Your task to perform on an android device: read, delete, or share a saved page in the chrome app Image 0: 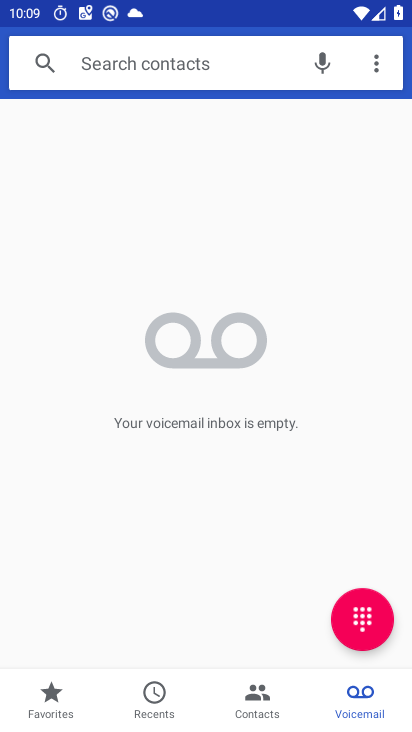
Step 0: press back button
Your task to perform on an android device: read, delete, or share a saved page in the chrome app Image 1: 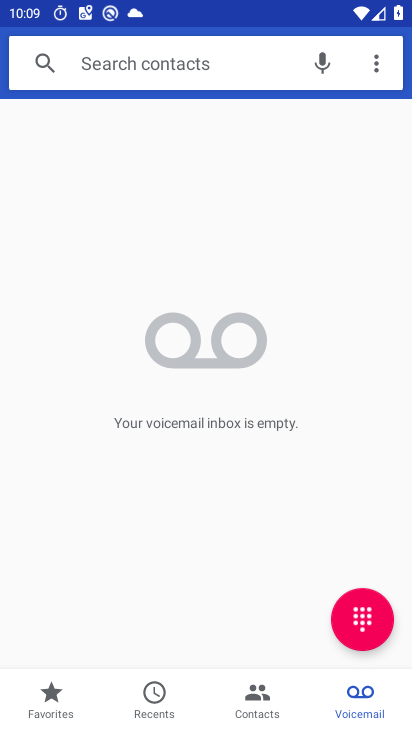
Step 1: press back button
Your task to perform on an android device: read, delete, or share a saved page in the chrome app Image 2: 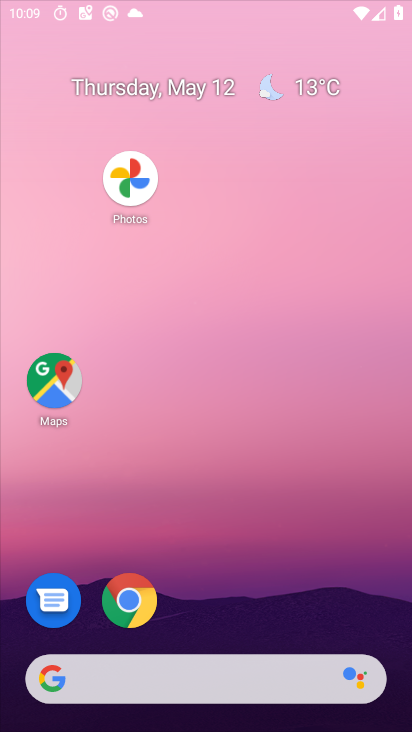
Step 2: press back button
Your task to perform on an android device: read, delete, or share a saved page in the chrome app Image 3: 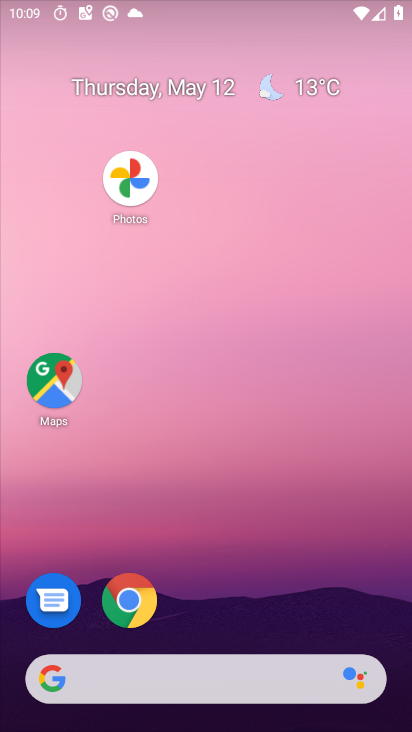
Step 3: press back button
Your task to perform on an android device: read, delete, or share a saved page in the chrome app Image 4: 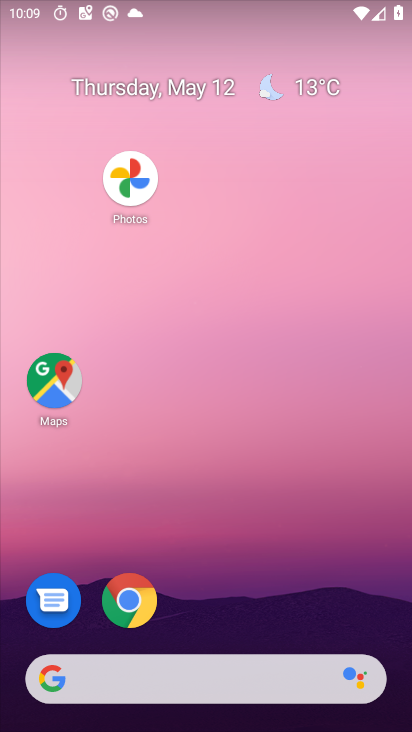
Step 4: drag from (254, 543) to (15, 0)
Your task to perform on an android device: read, delete, or share a saved page in the chrome app Image 5: 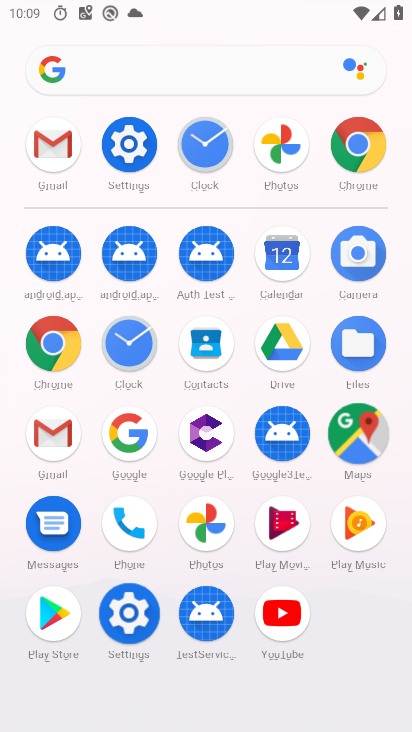
Step 5: click (54, 345)
Your task to perform on an android device: read, delete, or share a saved page in the chrome app Image 6: 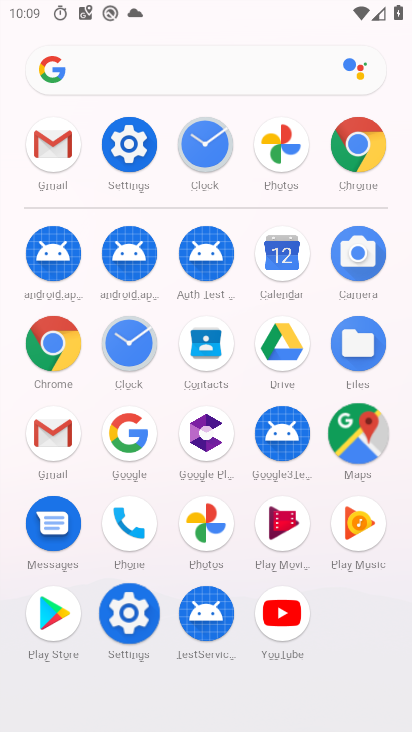
Step 6: click (45, 335)
Your task to perform on an android device: read, delete, or share a saved page in the chrome app Image 7: 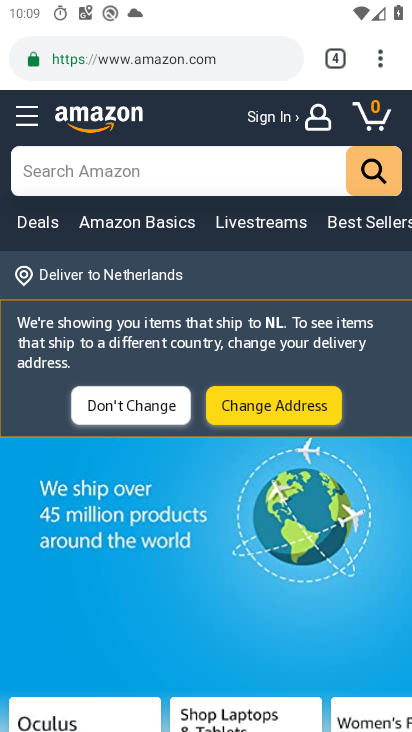
Step 7: drag from (378, 62) to (165, 387)
Your task to perform on an android device: read, delete, or share a saved page in the chrome app Image 8: 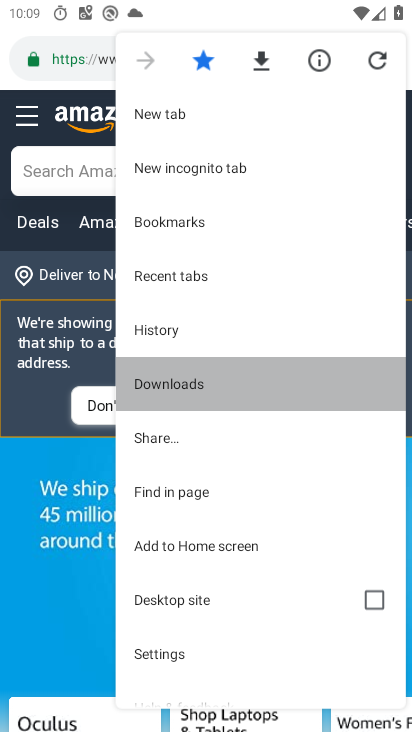
Step 8: click (165, 387)
Your task to perform on an android device: read, delete, or share a saved page in the chrome app Image 9: 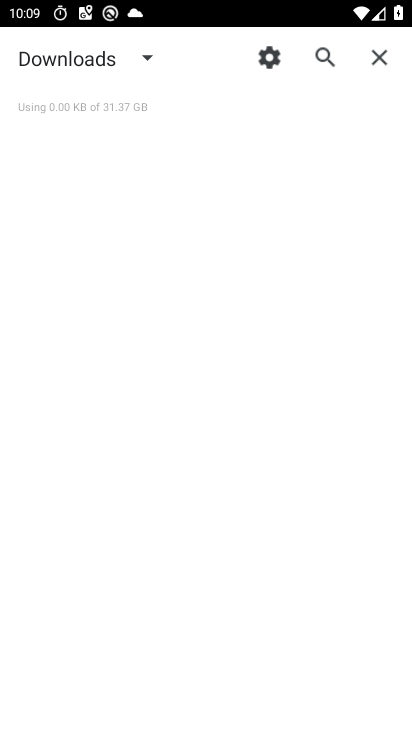
Step 9: click (140, 56)
Your task to perform on an android device: read, delete, or share a saved page in the chrome app Image 10: 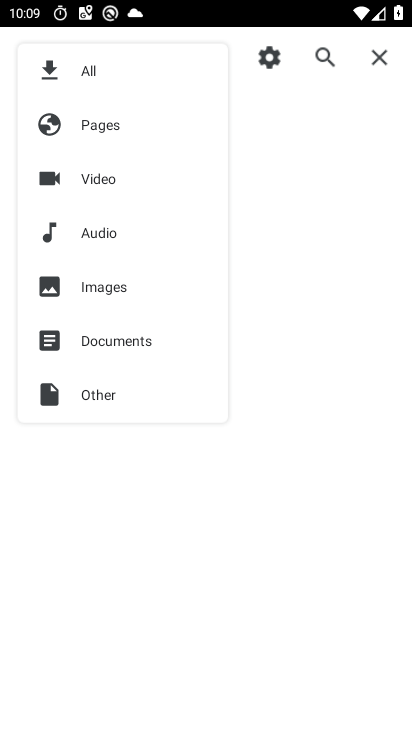
Step 10: click (102, 175)
Your task to perform on an android device: read, delete, or share a saved page in the chrome app Image 11: 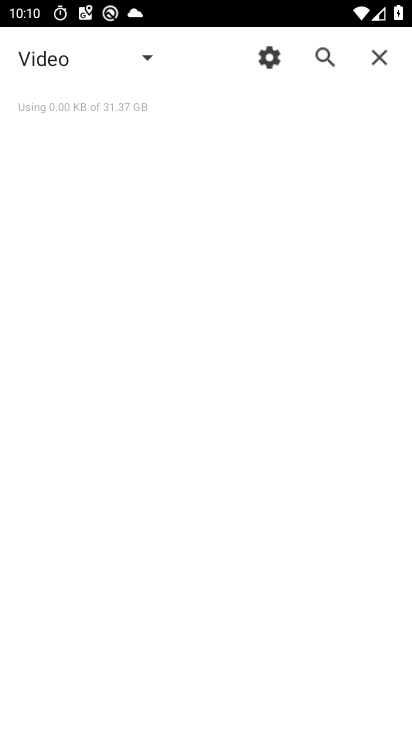
Step 11: task complete